Your task to perform on an android device: turn off location Image 0: 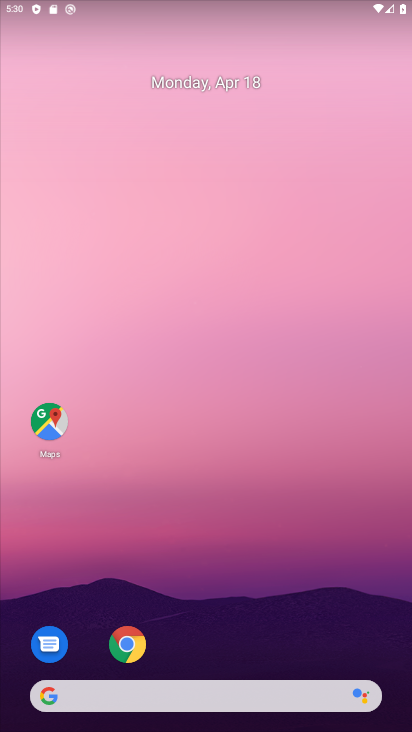
Step 0: press home button
Your task to perform on an android device: turn off location Image 1: 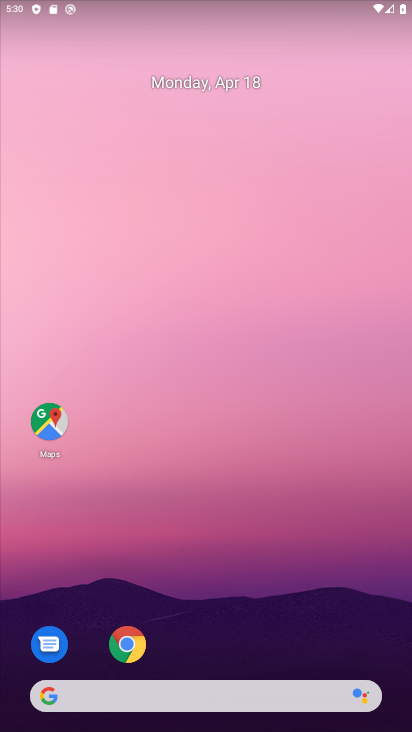
Step 1: drag from (203, 634) to (239, 143)
Your task to perform on an android device: turn off location Image 2: 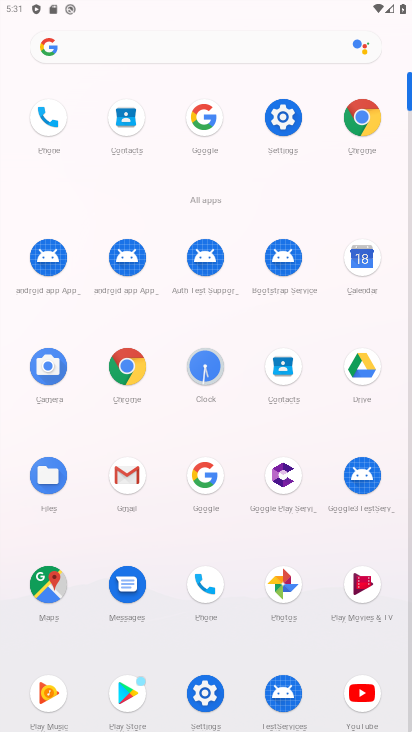
Step 2: click (38, 581)
Your task to perform on an android device: turn off location Image 3: 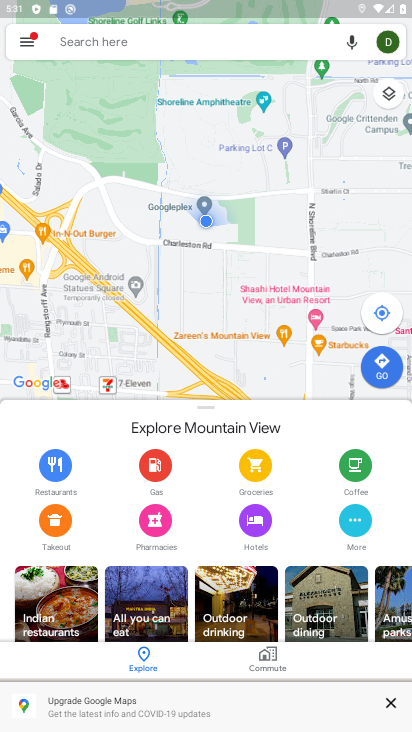
Step 3: click (32, 32)
Your task to perform on an android device: turn off location Image 4: 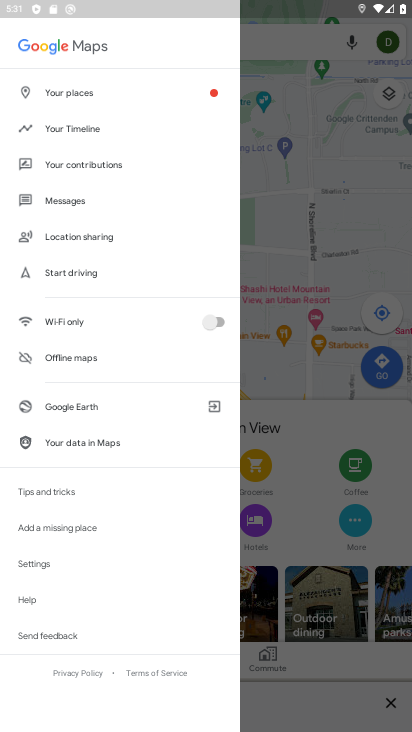
Step 4: click (48, 566)
Your task to perform on an android device: turn off location Image 5: 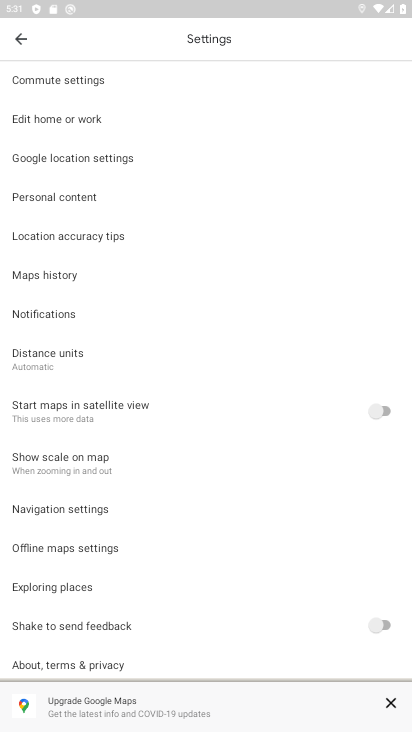
Step 5: click (121, 156)
Your task to perform on an android device: turn off location Image 6: 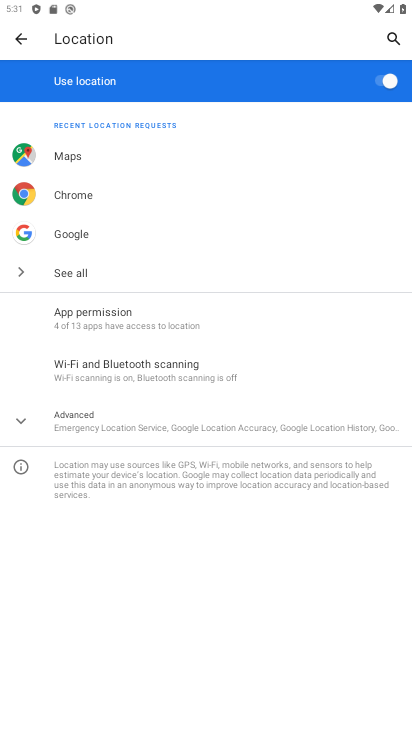
Step 6: click (377, 76)
Your task to perform on an android device: turn off location Image 7: 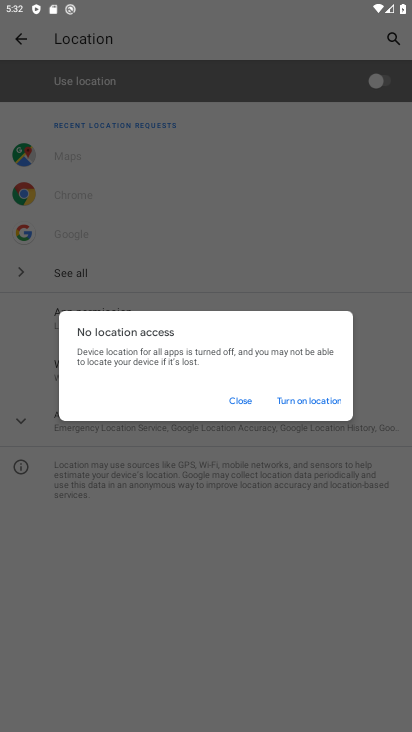
Step 7: click (250, 402)
Your task to perform on an android device: turn off location Image 8: 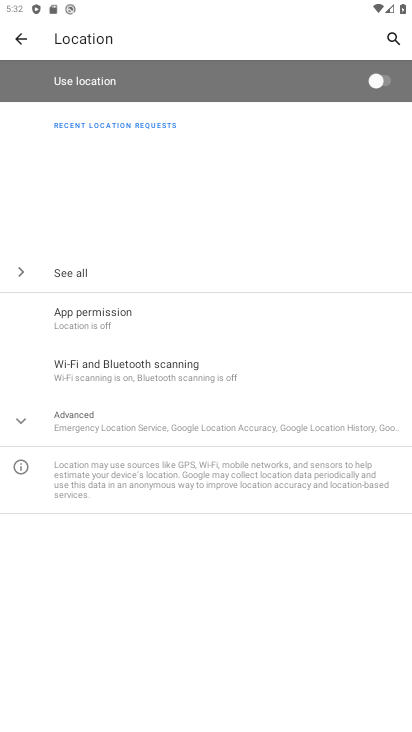
Step 8: task complete